Your task to perform on an android device: change timer sound Image 0: 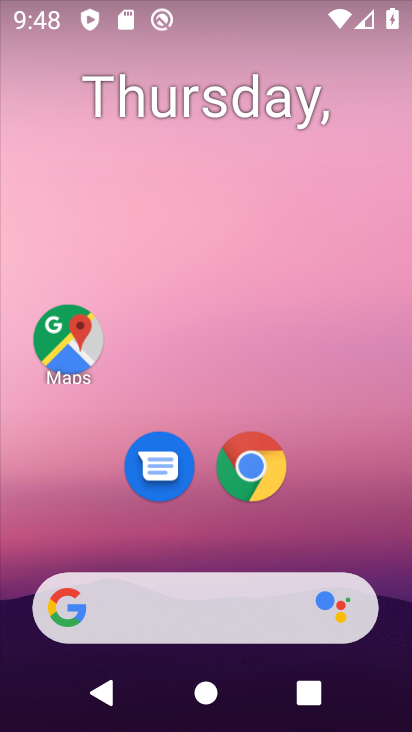
Step 0: drag from (213, 546) to (148, 135)
Your task to perform on an android device: change timer sound Image 1: 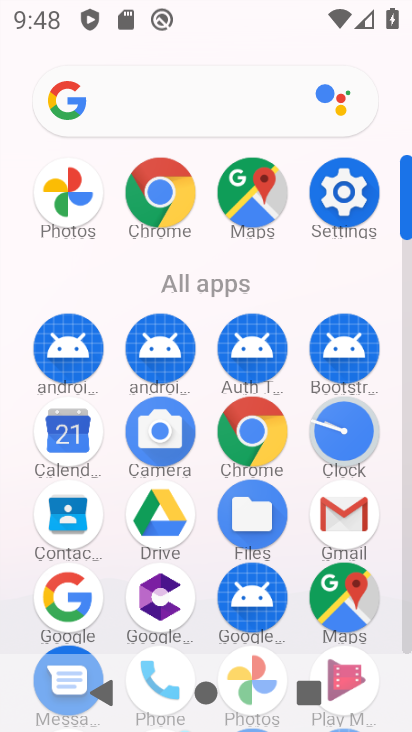
Step 1: click (336, 452)
Your task to perform on an android device: change timer sound Image 2: 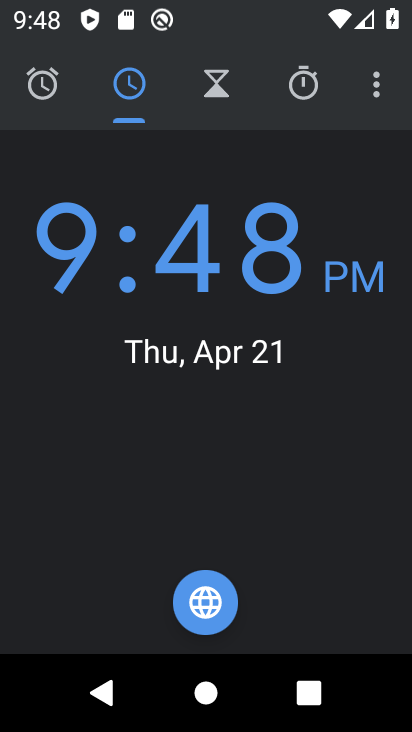
Step 2: click (372, 93)
Your task to perform on an android device: change timer sound Image 3: 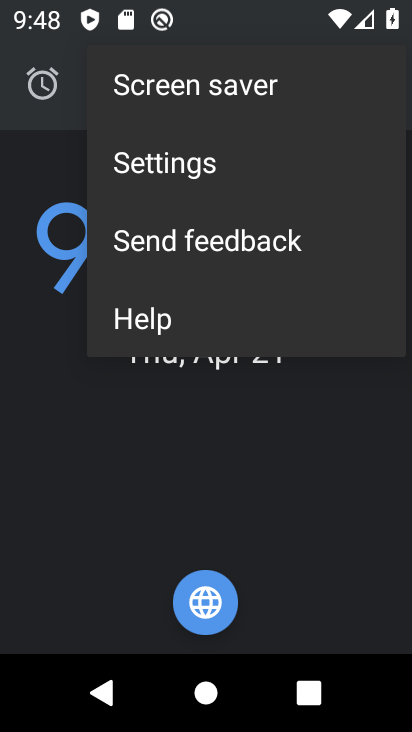
Step 3: click (253, 141)
Your task to perform on an android device: change timer sound Image 4: 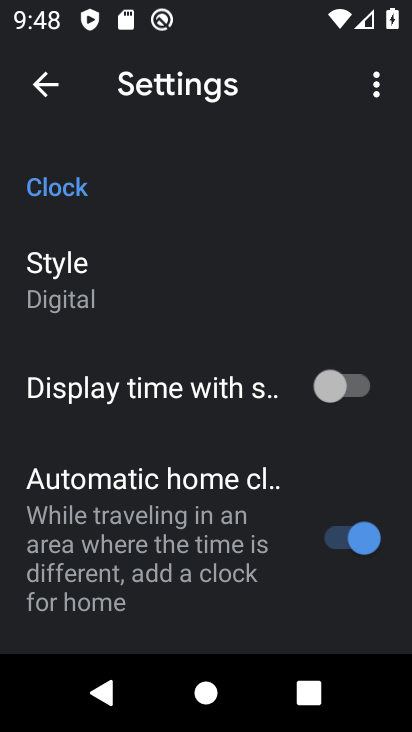
Step 4: drag from (198, 552) to (285, 208)
Your task to perform on an android device: change timer sound Image 5: 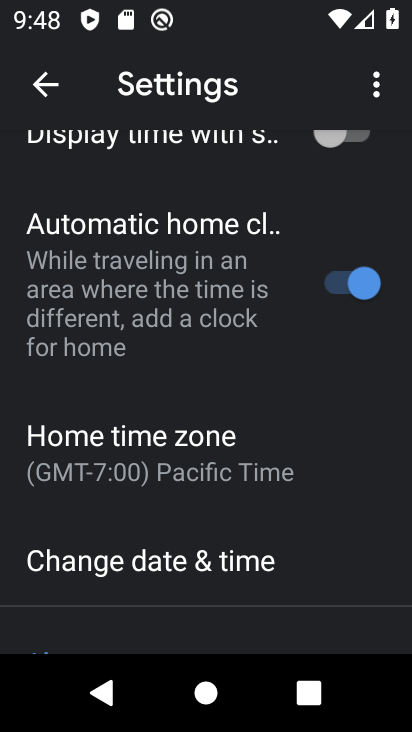
Step 5: drag from (306, 450) to (302, 127)
Your task to perform on an android device: change timer sound Image 6: 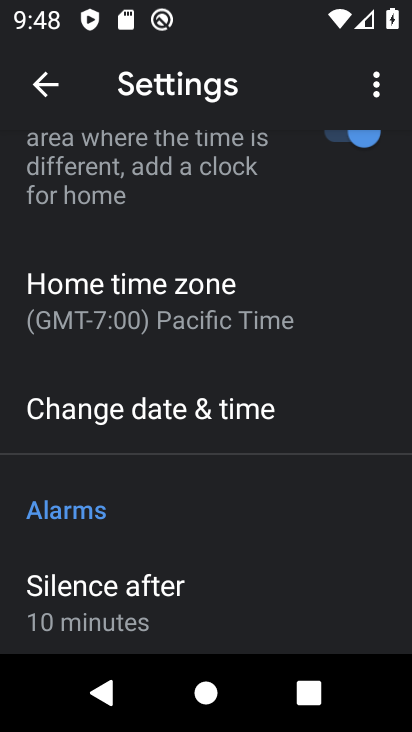
Step 6: drag from (231, 513) to (249, 142)
Your task to perform on an android device: change timer sound Image 7: 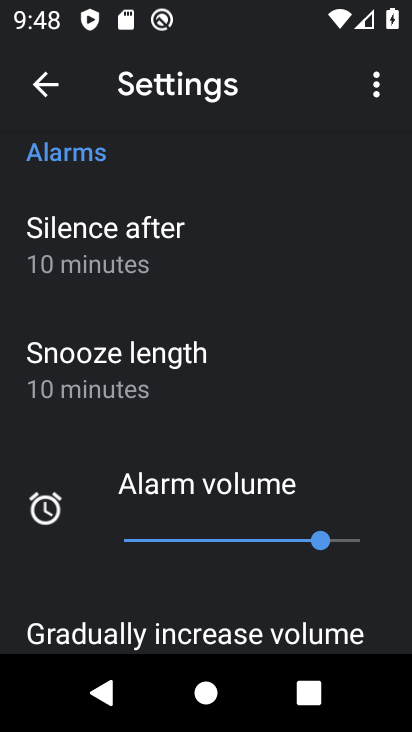
Step 7: drag from (215, 528) to (219, 191)
Your task to perform on an android device: change timer sound Image 8: 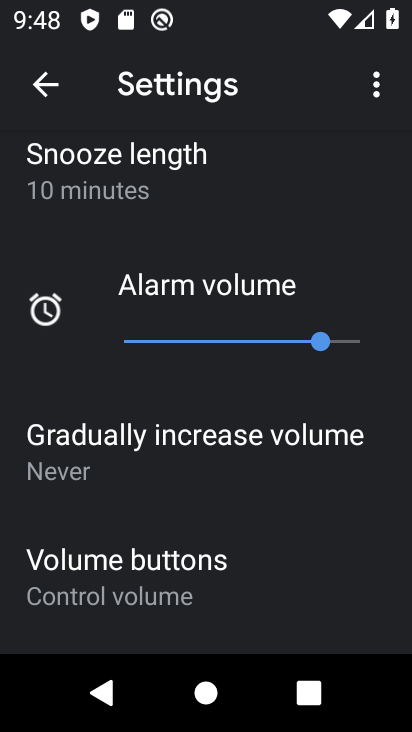
Step 8: drag from (212, 533) to (271, 186)
Your task to perform on an android device: change timer sound Image 9: 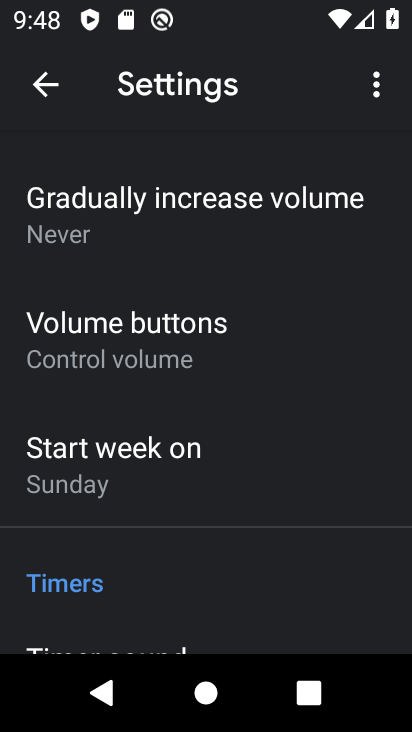
Step 9: drag from (219, 550) to (218, 155)
Your task to perform on an android device: change timer sound Image 10: 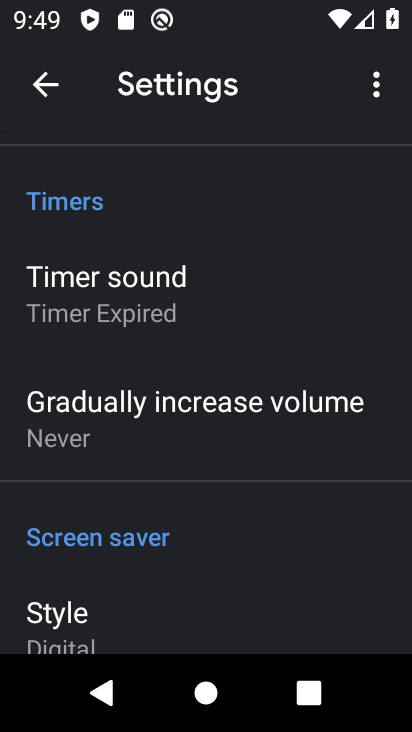
Step 10: drag from (245, 512) to (268, 223)
Your task to perform on an android device: change timer sound Image 11: 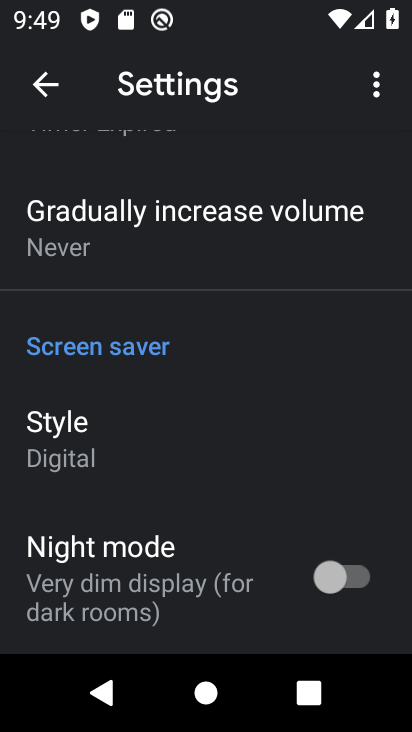
Step 11: drag from (278, 411) to (263, 139)
Your task to perform on an android device: change timer sound Image 12: 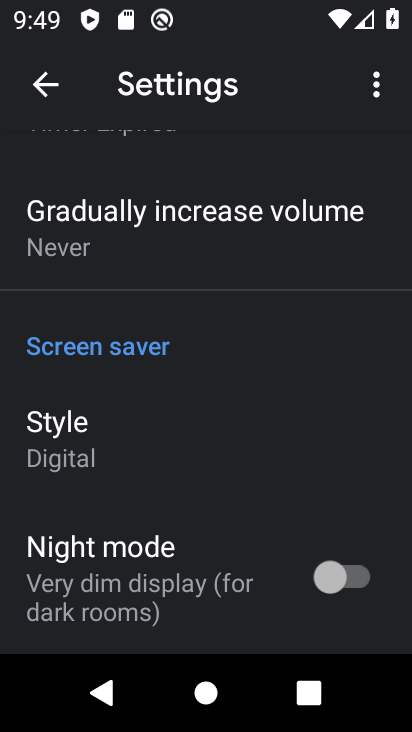
Step 12: drag from (298, 168) to (280, 501)
Your task to perform on an android device: change timer sound Image 13: 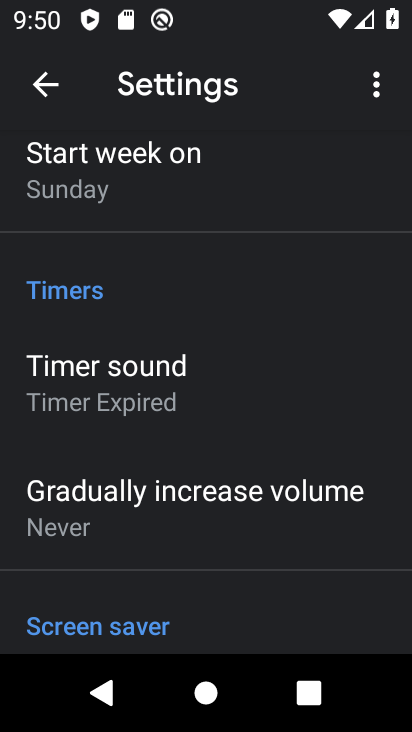
Step 13: click (235, 376)
Your task to perform on an android device: change timer sound Image 14: 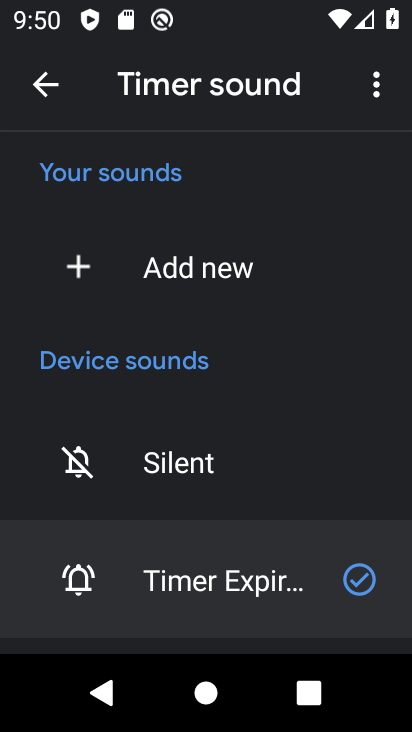
Step 14: drag from (224, 505) to (199, 245)
Your task to perform on an android device: change timer sound Image 15: 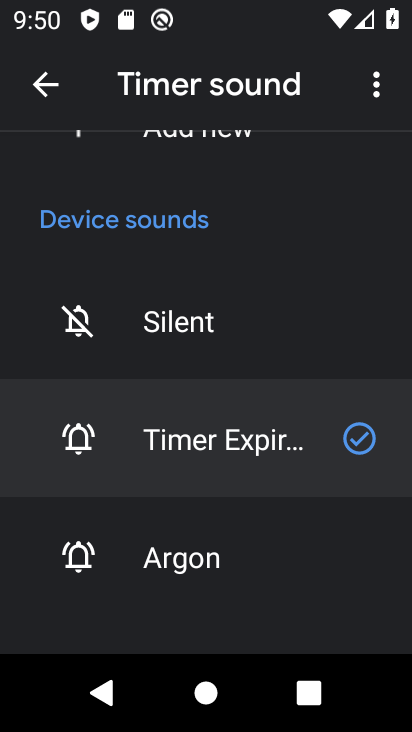
Step 15: click (213, 541)
Your task to perform on an android device: change timer sound Image 16: 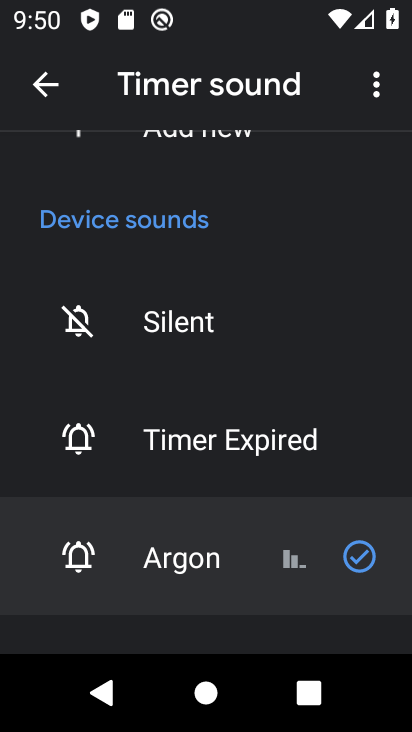
Step 16: task complete